Your task to perform on an android device: See recent photos Image 0: 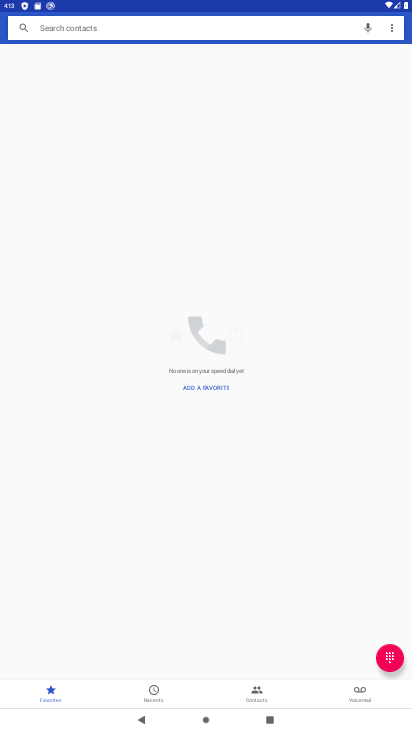
Step 0: press home button
Your task to perform on an android device: See recent photos Image 1: 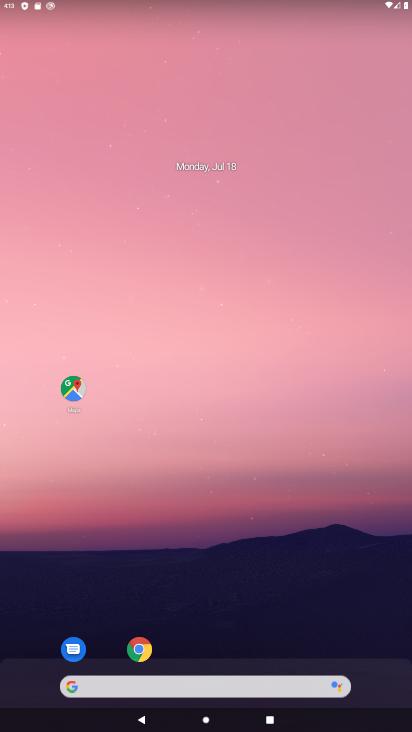
Step 1: drag from (175, 651) to (278, 81)
Your task to perform on an android device: See recent photos Image 2: 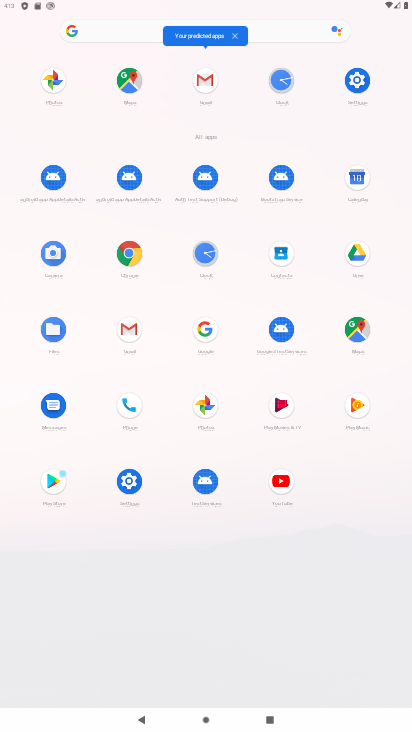
Step 2: click (207, 406)
Your task to perform on an android device: See recent photos Image 3: 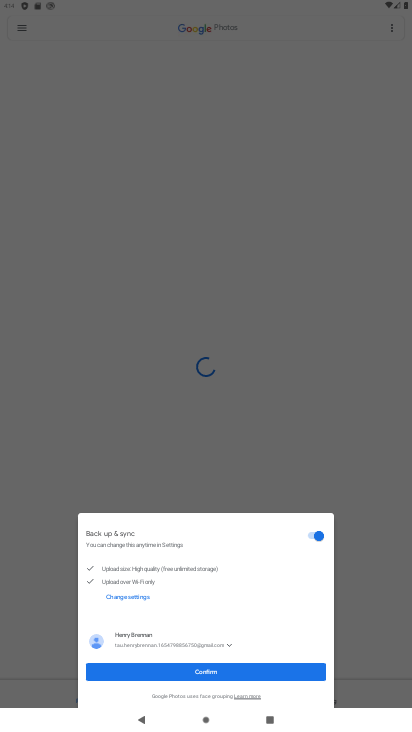
Step 3: click (205, 670)
Your task to perform on an android device: See recent photos Image 4: 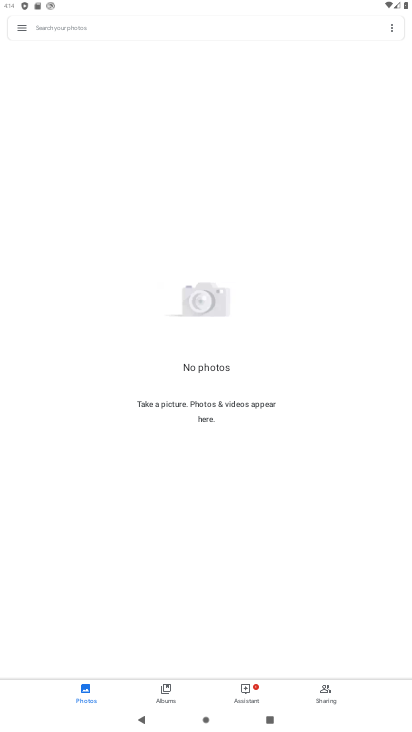
Step 4: task complete